Your task to perform on an android device: Go to Android settings Image 0: 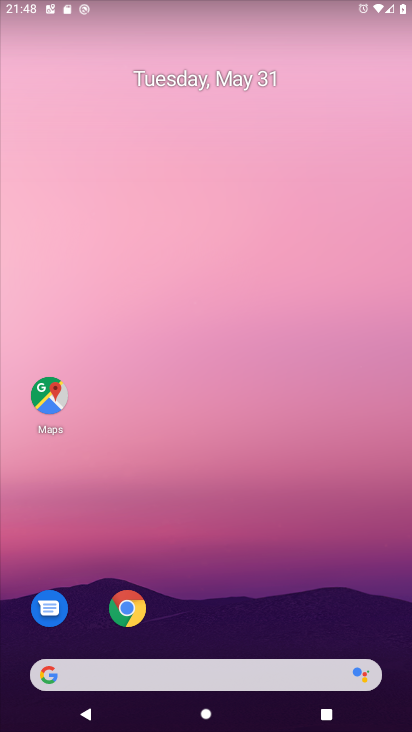
Step 0: drag from (245, 567) to (233, 113)
Your task to perform on an android device: Go to Android settings Image 1: 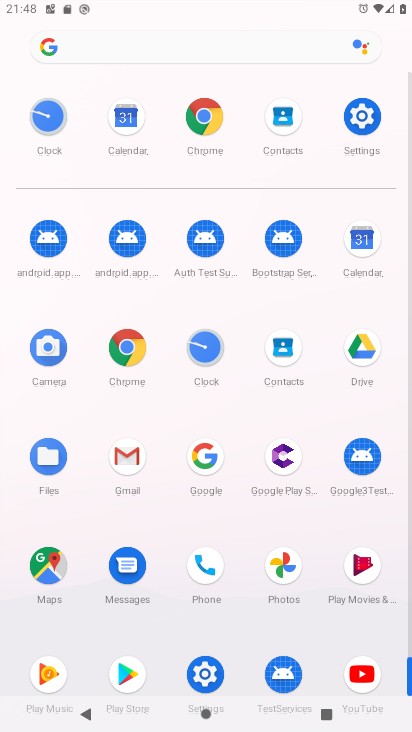
Step 1: click (363, 116)
Your task to perform on an android device: Go to Android settings Image 2: 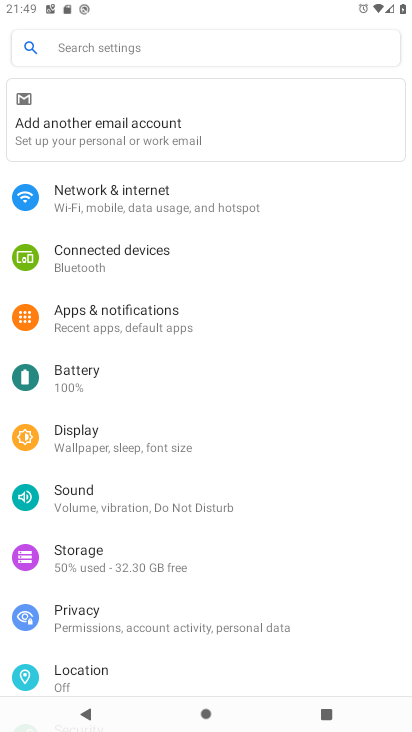
Step 2: task complete